Your task to perform on an android device: Search for Italian restaurants on Maps Image 0: 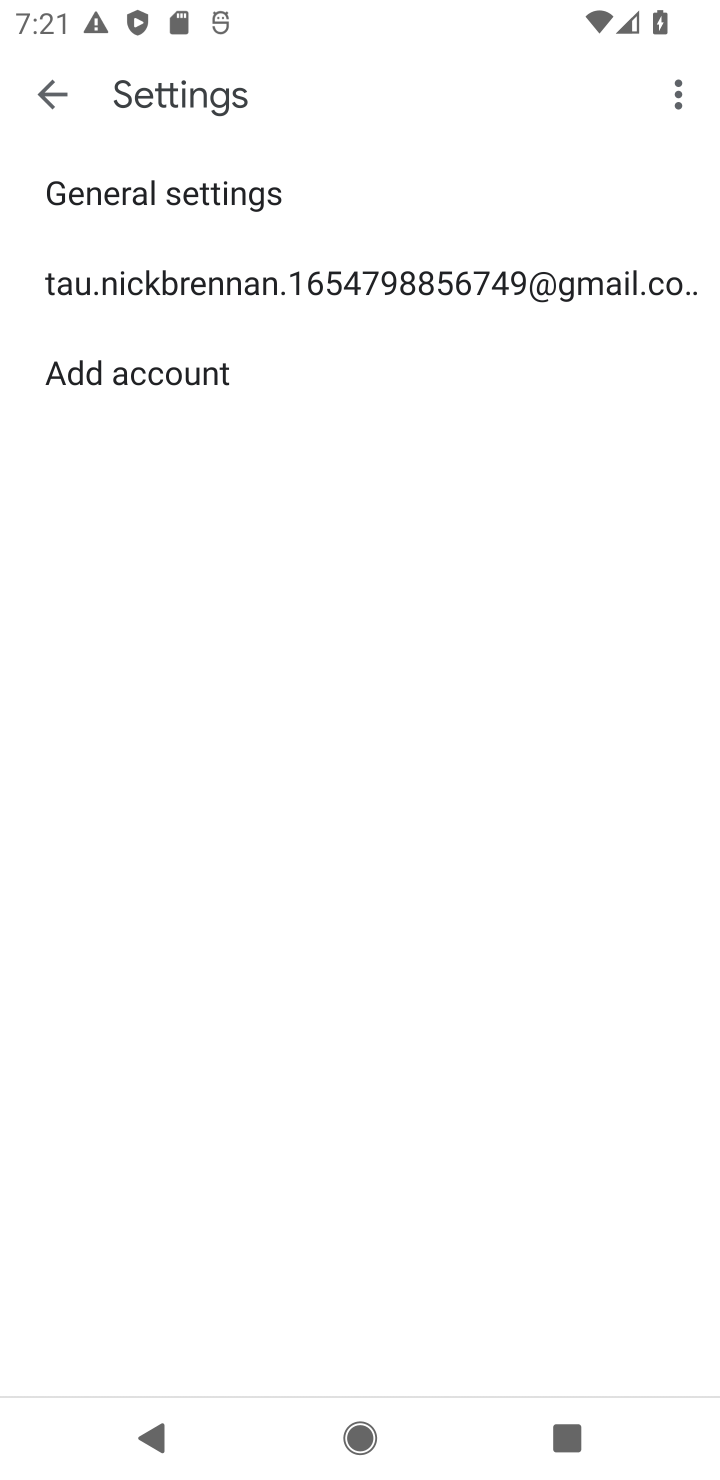
Step 0: press home button
Your task to perform on an android device: Search for Italian restaurants on Maps Image 1: 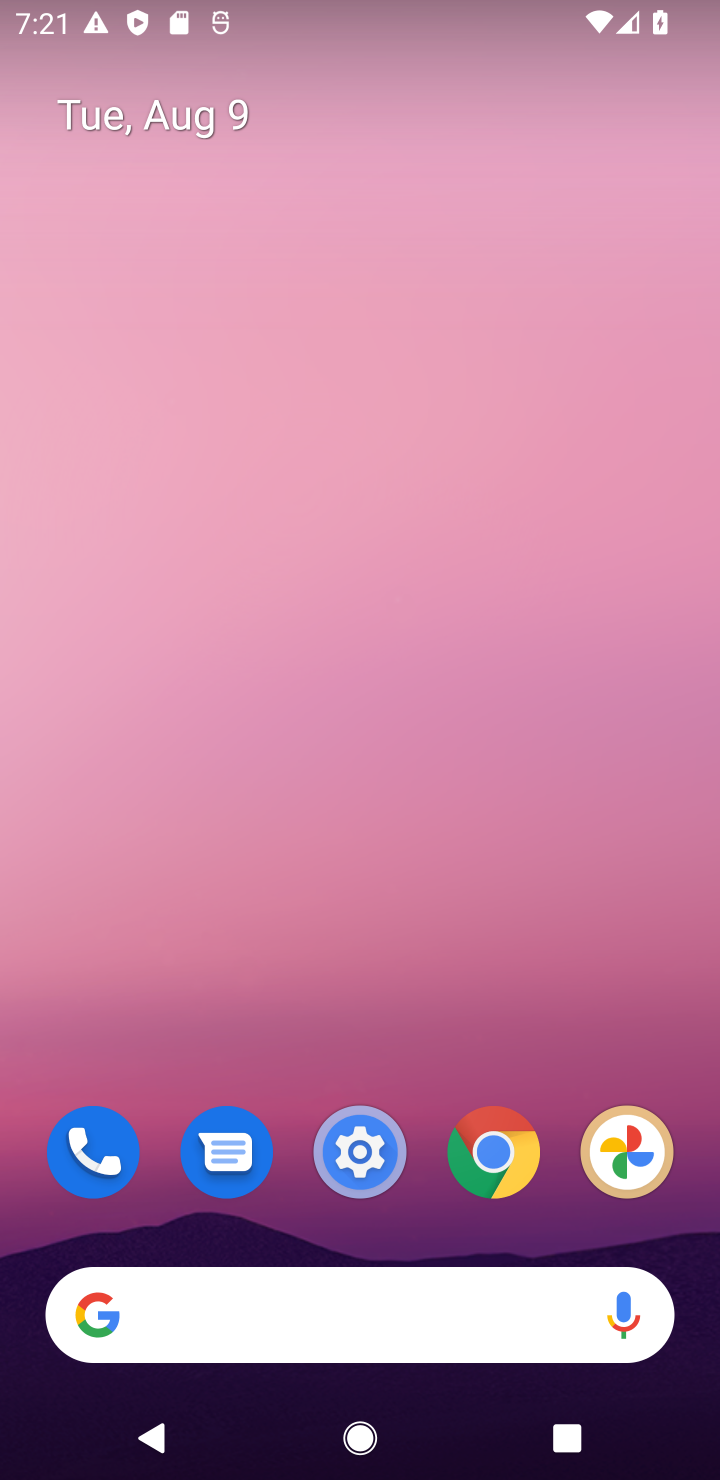
Step 1: drag from (372, 1047) to (507, 8)
Your task to perform on an android device: Search for Italian restaurants on Maps Image 2: 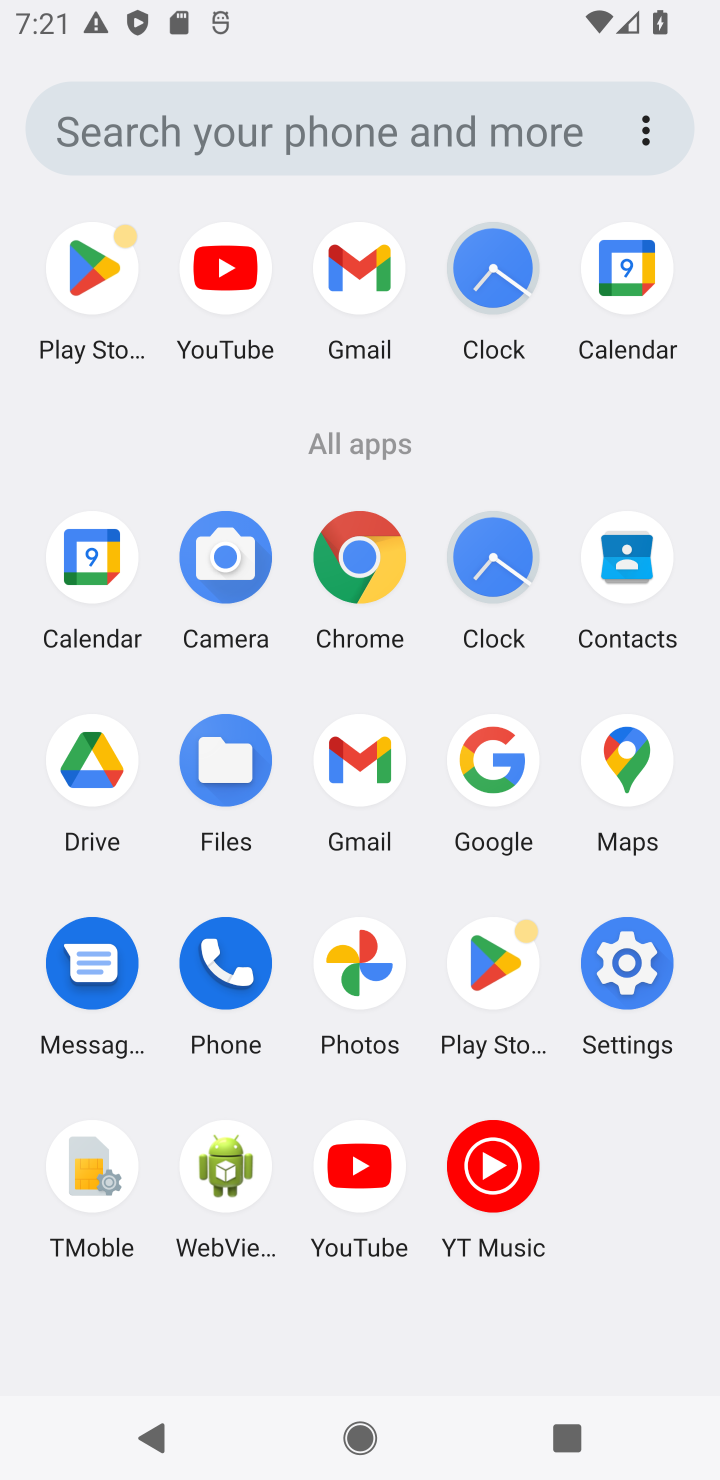
Step 2: click (644, 807)
Your task to perform on an android device: Search for Italian restaurants on Maps Image 3: 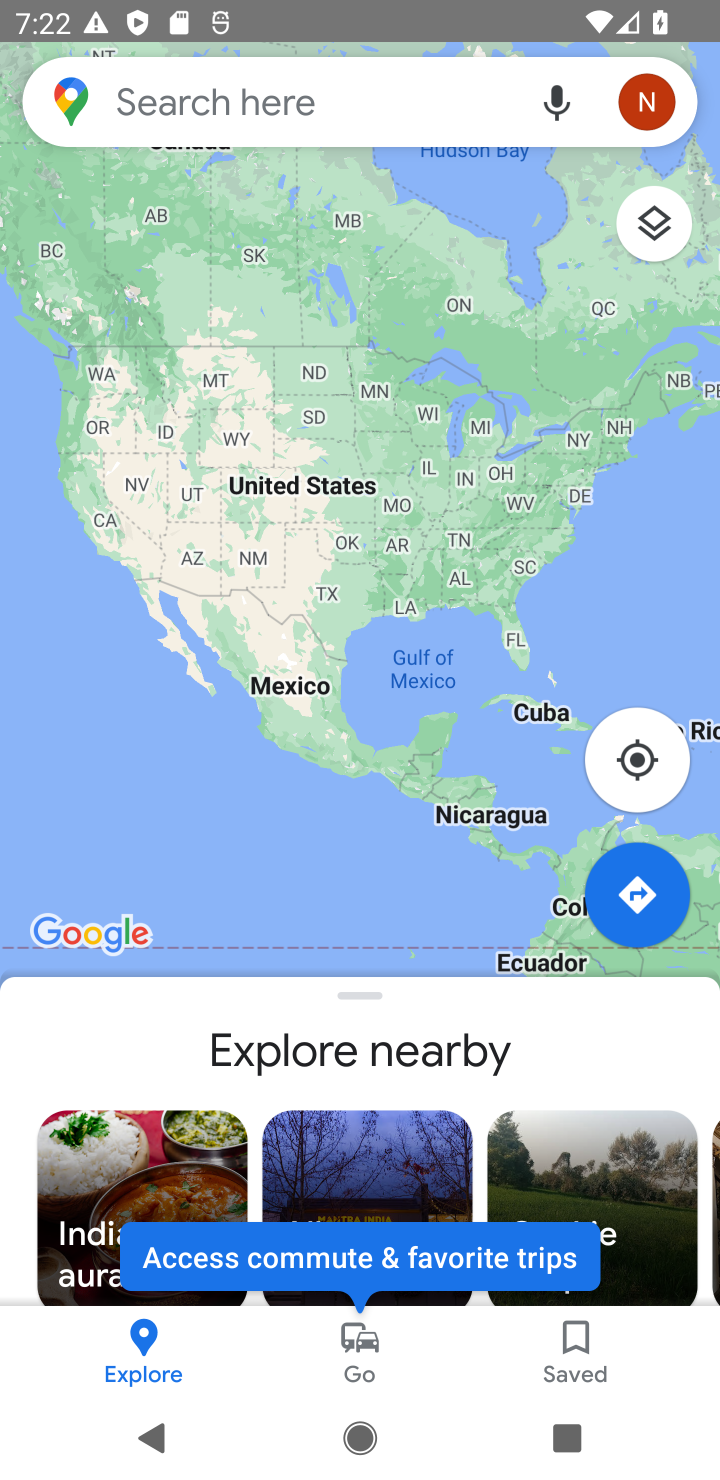
Step 3: click (367, 89)
Your task to perform on an android device: Search for Italian restaurants on Maps Image 4: 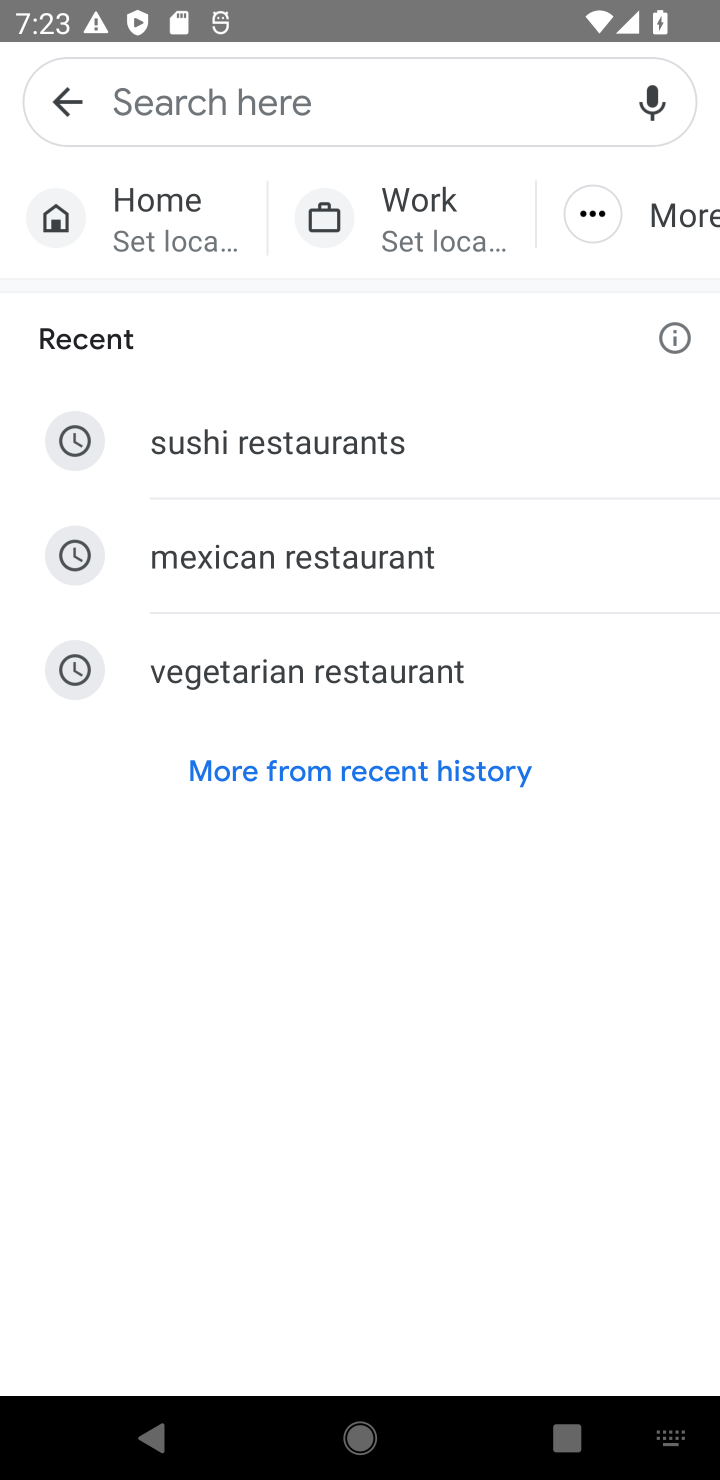
Step 4: type "italian restaurant"
Your task to perform on an android device: Search for Italian restaurants on Maps Image 5: 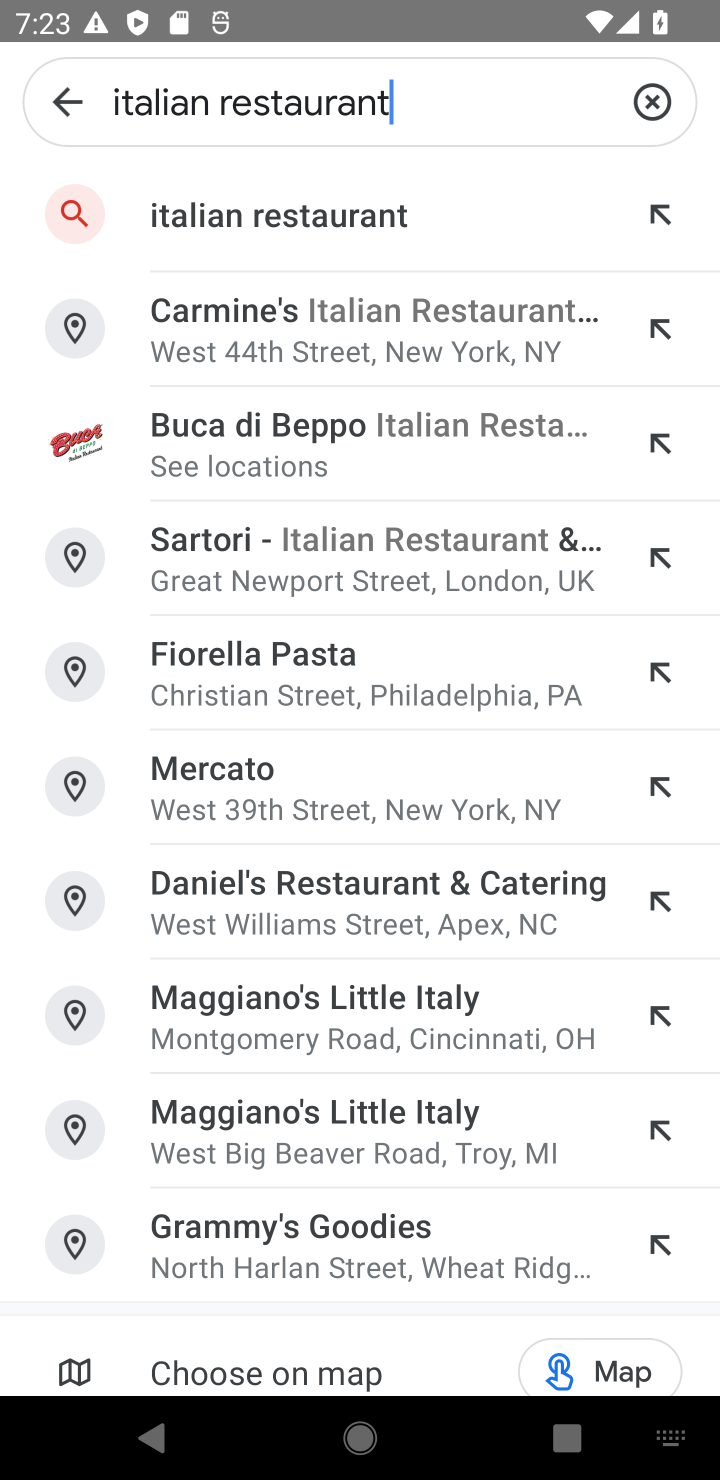
Step 5: click (521, 245)
Your task to perform on an android device: Search for Italian restaurants on Maps Image 6: 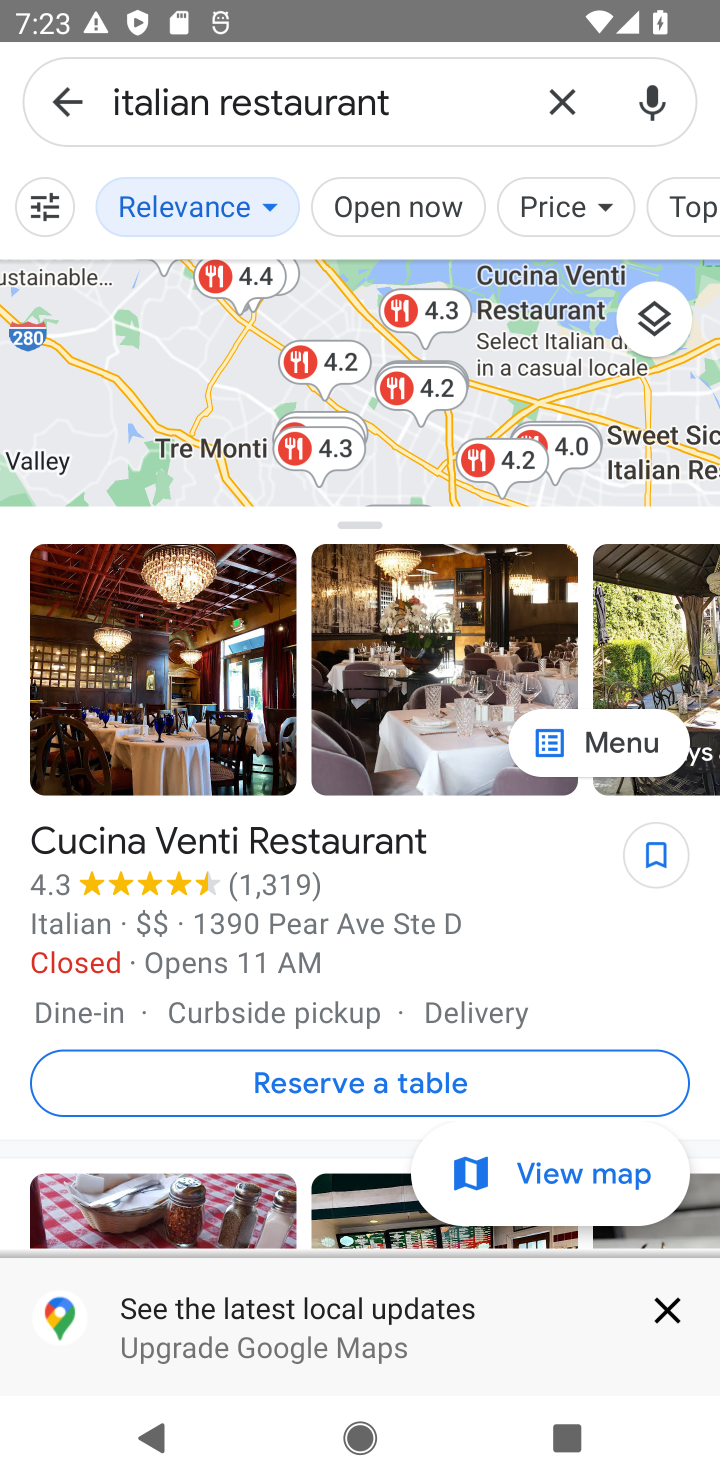
Step 6: task complete